Your task to perform on an android device: set the timer Image 0: 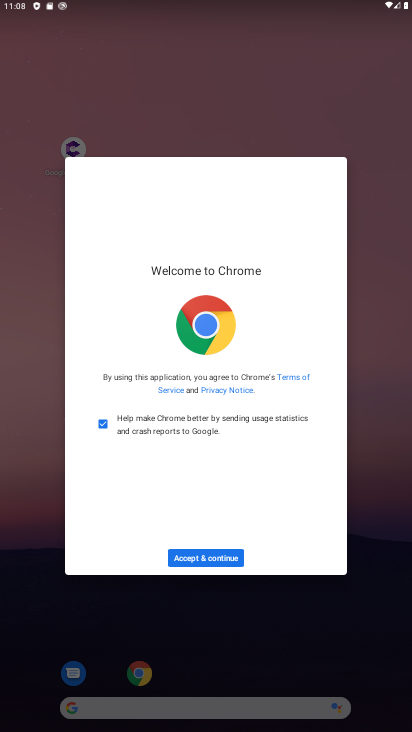
Step 0: press home button
Your task to perform on an android device: set the timer Image 1: 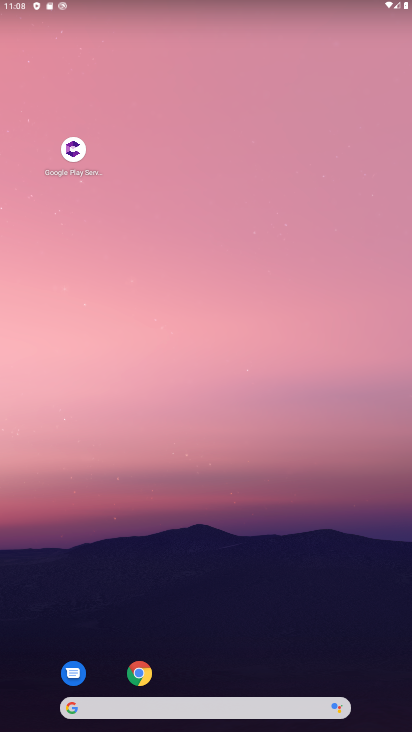
Step 1: drag from (245, 544) to (195, 82)
Your task to perform on an android device: set the timer Image 2: 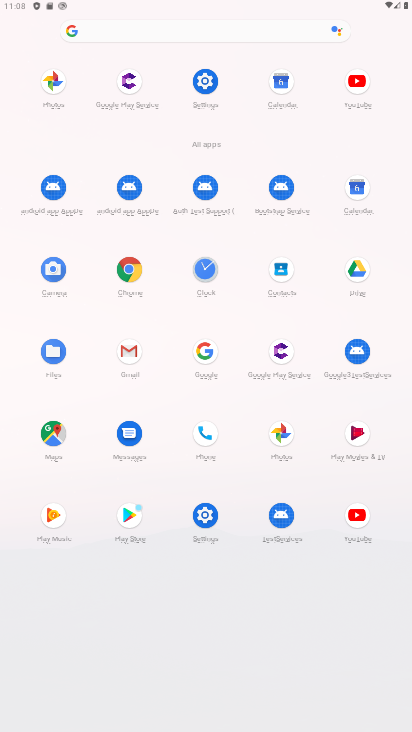
Step 2: press back button
Your task to perform on an android device: set the timer Image 3: 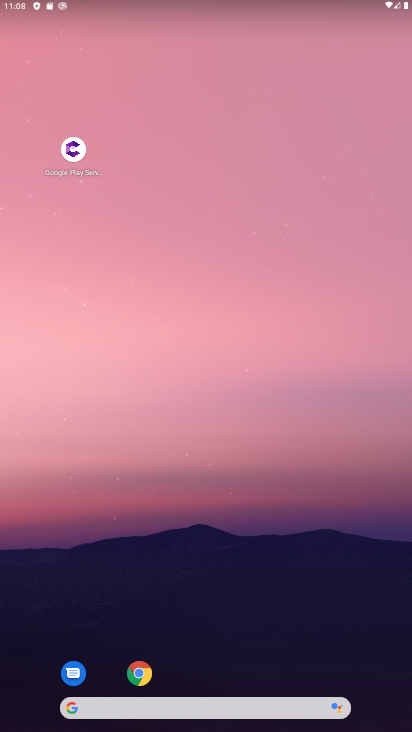
Step 3: drag from (193, 504) to (181, 98)
Your task to perform on an android device: set the timer Image 4: 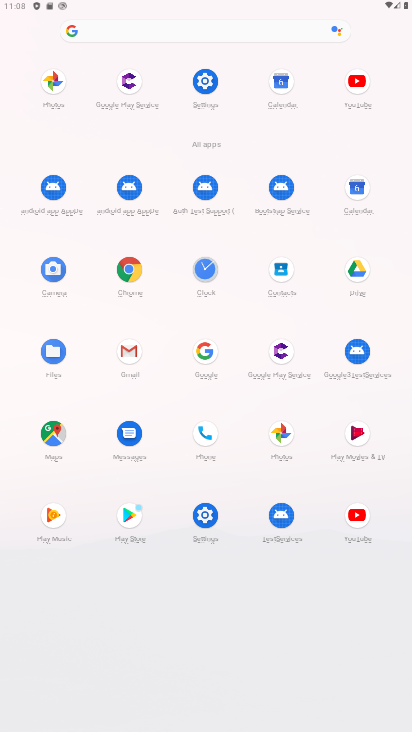
Step 4: click (206, 278)
Your task to perform on an android device: set the timer Image 5: 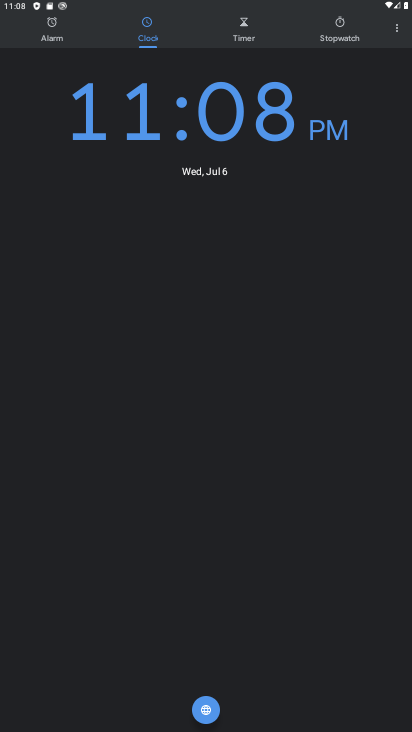
Step 5: click (252, 37)
Your task to perform on an android device: set the timer Image 6: 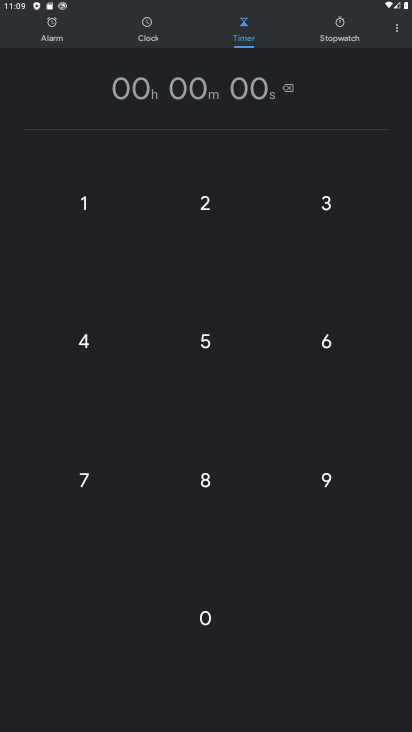
Step 6: click (213, 212)
Your task to perform on an android device: set the timer Image 7: 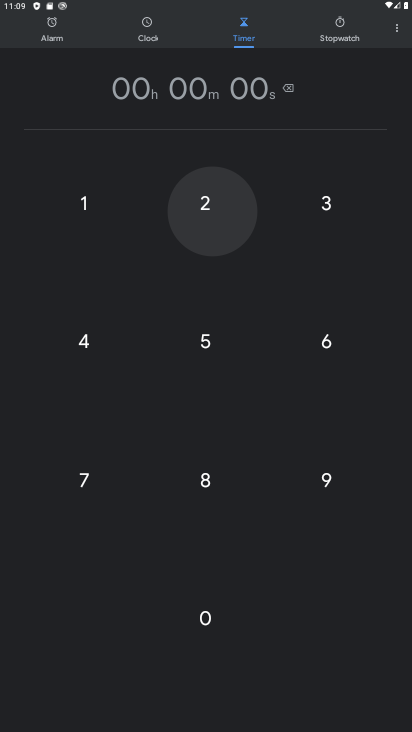
Step 7: click (213, 212)
Your task to perform on an android device: set the timer Image 8: 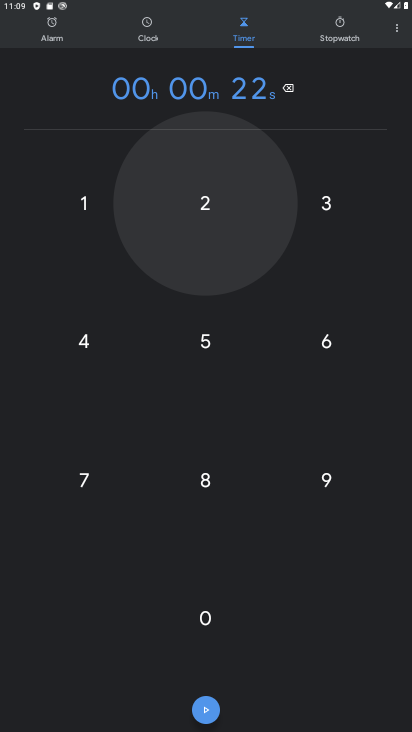
Step 8: click (213, 212)
Your task to perform on an android device: set the timer Image 9: 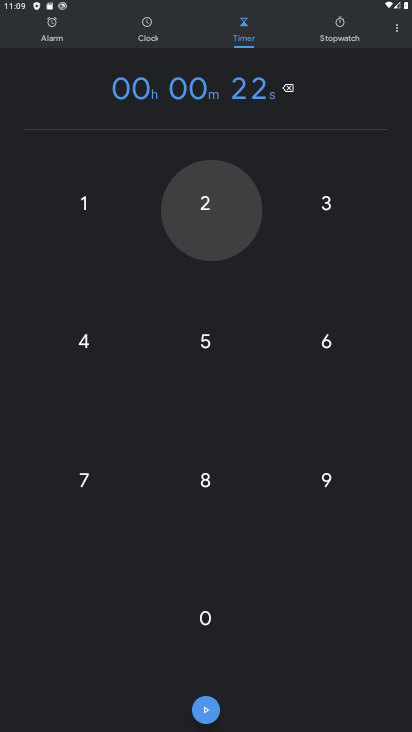
Step 9: click (213, 212)
Your task to perform on an android device: set the timer Image 10: 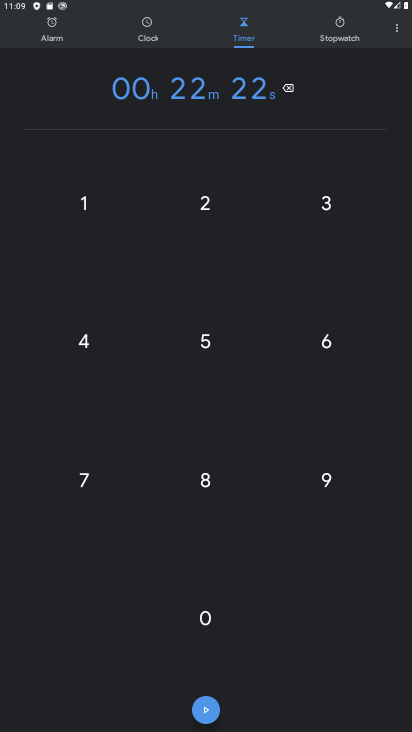
Step 10: click (198, 715)
Your task to perform on an android device: set the timer Image 11: 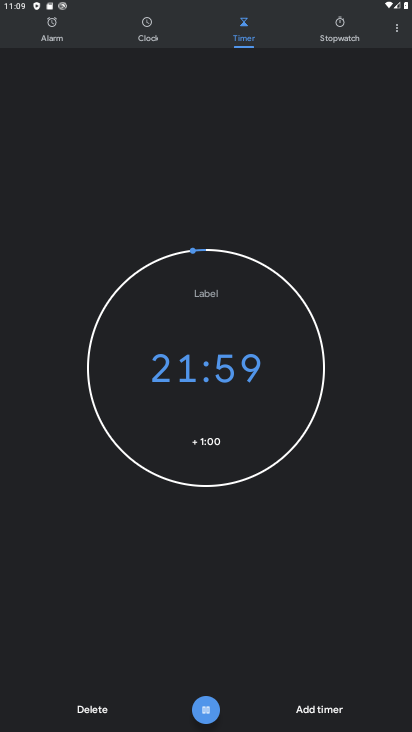
Step 11: task complete